Your task to perform on an android device: toggle show notifications on the lock screen Image 0: 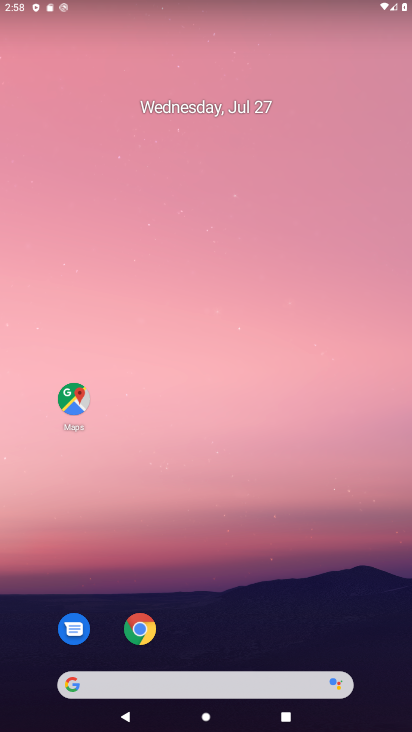
Step 0: drag from (208, 655) to (174, 57)
Your task to perform on an android device: toggle show notifications on the lock screen Image 1: 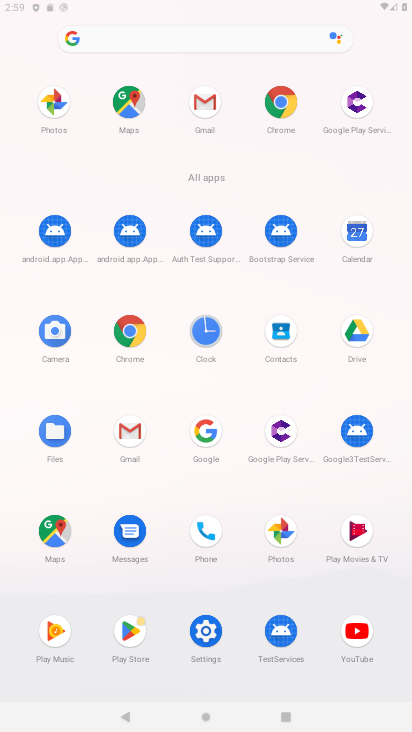
Step 1: click (207, 628)
Your task to perform on an android device: toggle show notifications on the lock screen Image 2: 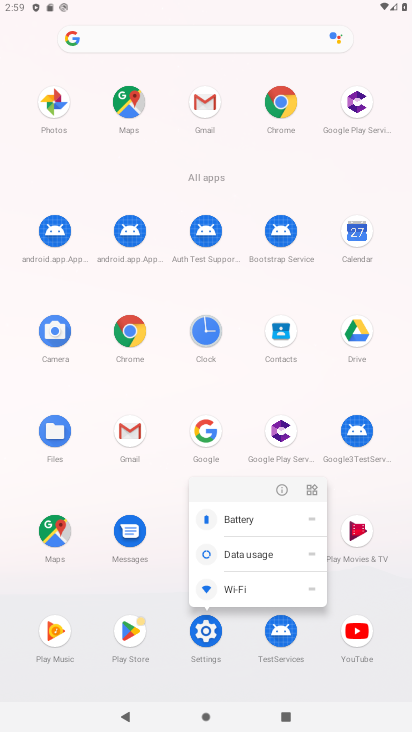
Step 2: click (203, 625)
Your task to perform on an android device: toggle show notifications on the lock screen Image 3: 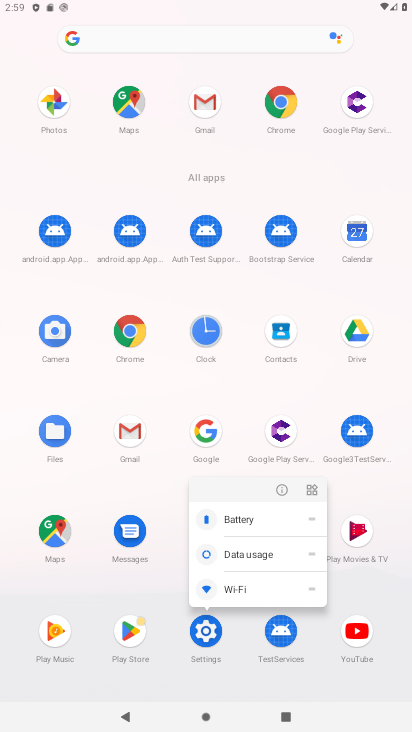
Step 3: click (198, 631)
Your task to perform on an android device: toggle show notifications on the lock screen Image 4: 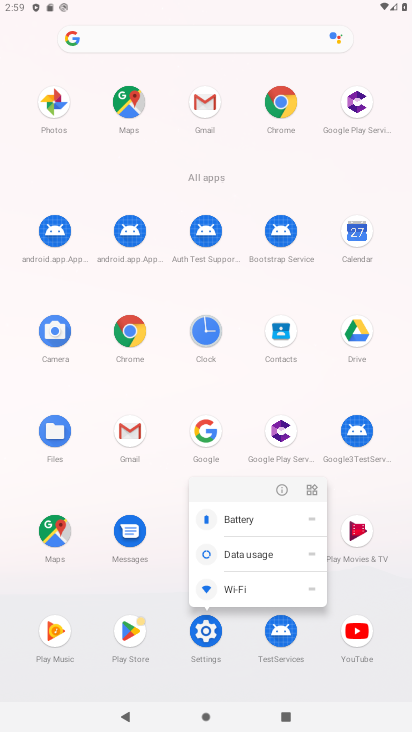
Step 4: click (204, 642)
Your task to perform on an android device: toggle show notifications on the lock screen Image 5: 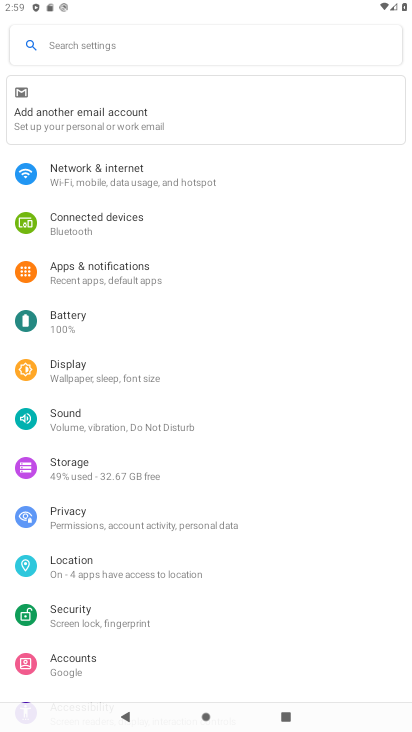
Step 5: click (93, 273)
Your task to perform on an android device: toggle show notifications on the lock screen Image 6: 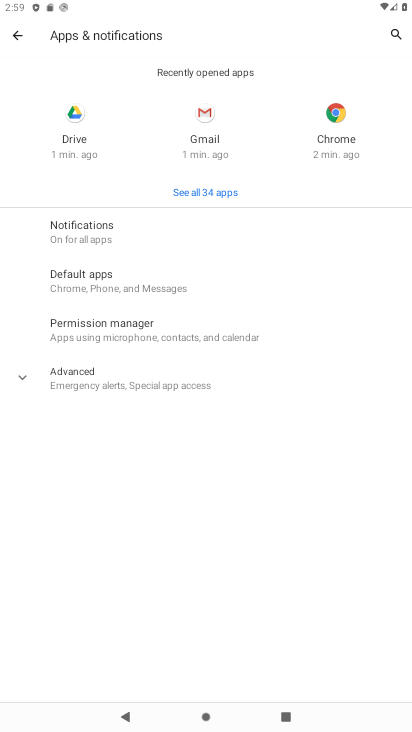
Step 6: click (98, 223)
Your task to perform on an android device: toggle show notifications on the lock screen Image 7: 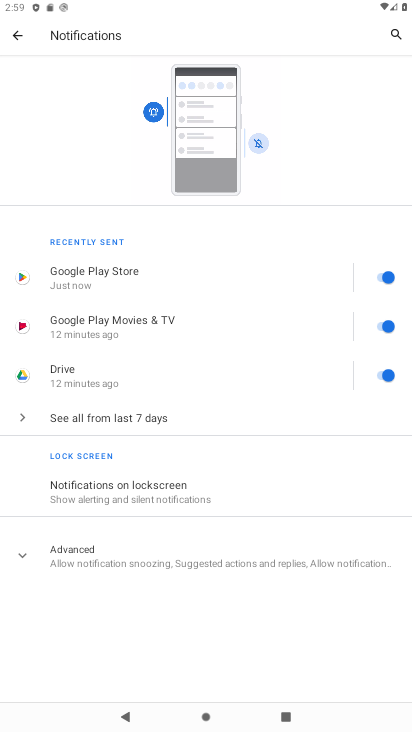
Step 7: click (82, 481)
Your task to perform on an android device: toggle show notifications on the lock screen Image 8: 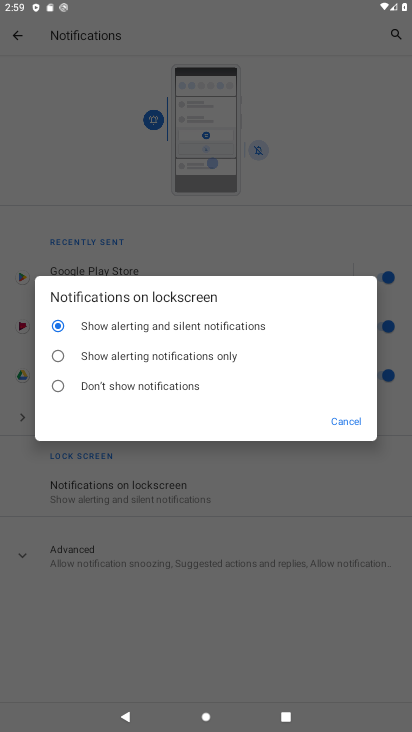
Step 8: click (54, 352)
Your task to perform on an android device: toggle show notifications on the lock screen Image 9: 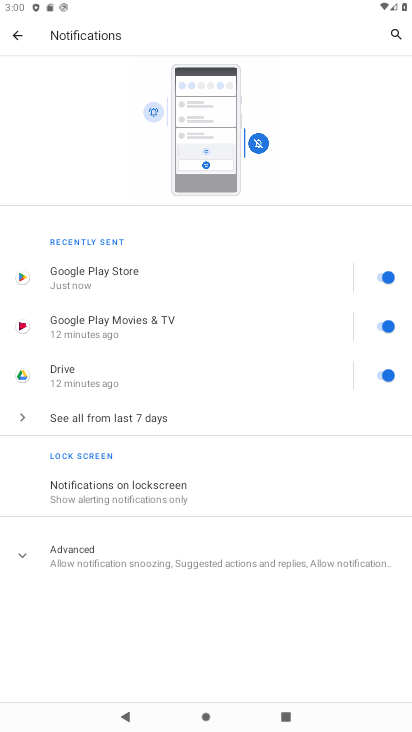
Step 9: task complete